Your task to perform on an android device: toggle data saver in the chrome app Image 0: 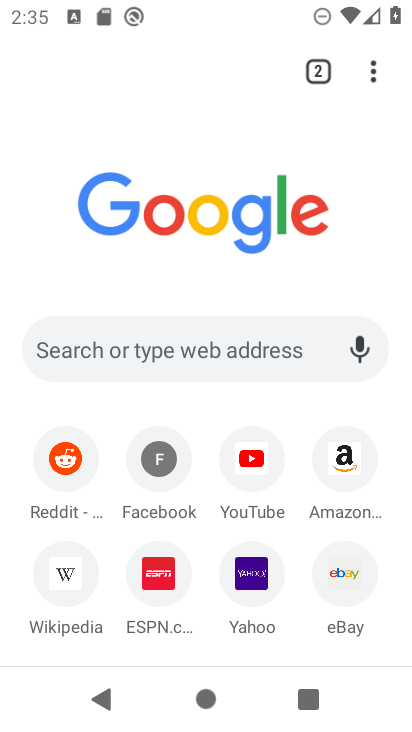
Step 0: drag from (346, 565) to (411, 433)
Your task to perform on an android device: toggle data saver in the chrome app Image 1: 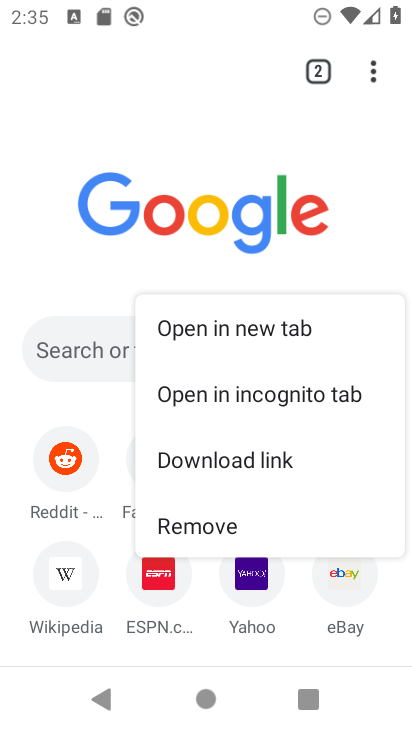
Step 1: press home button
Your task to perform on an android device: toggle data saver in the chrome app Image 2: 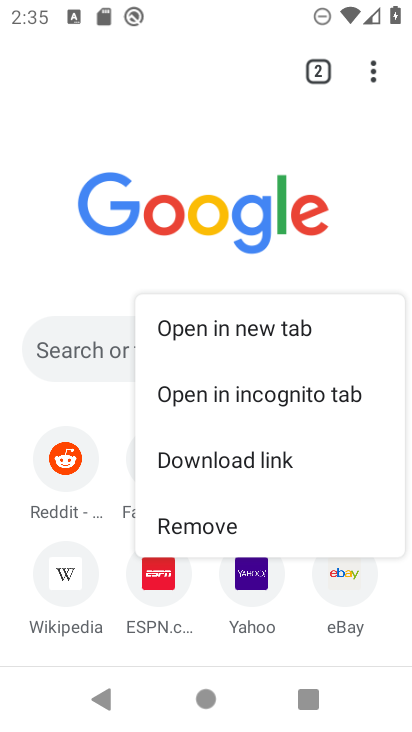
Step 2: drag from (411, 433) to (408, 474)
Your task to perform on an android device: toggle data saver in the chrome app Image 3: 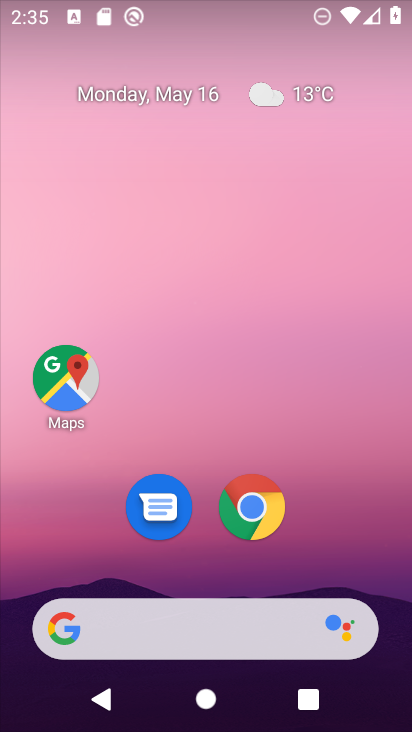
Step 3: drag from (360, 538) to (332, 119)
Your task to perform on an android device: toggle data saver in the chrome app Image 4: 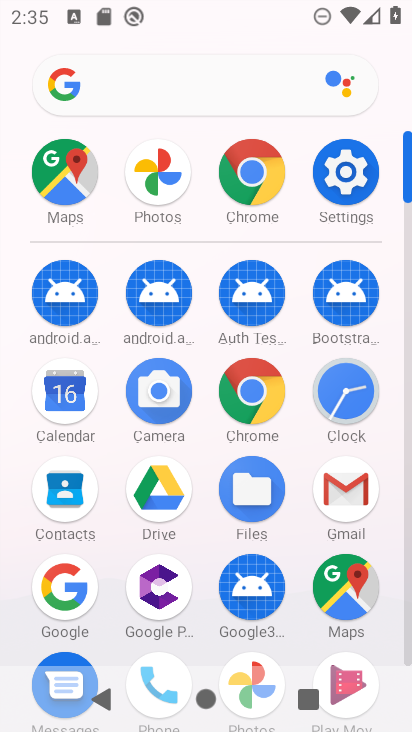
Step 4: click (269, 400)
Your task to perform on an android device: toggle data saver in the chrome app Image 5: 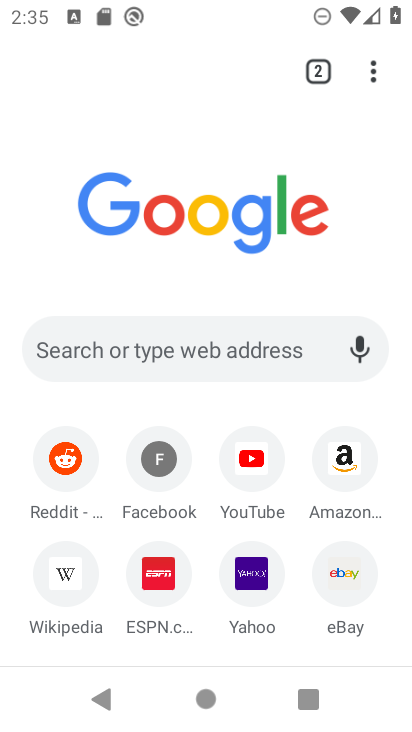
Step 5: click (373, 79)
Your task to perform on an android device: toggle data saver in the chrome app Image 6: 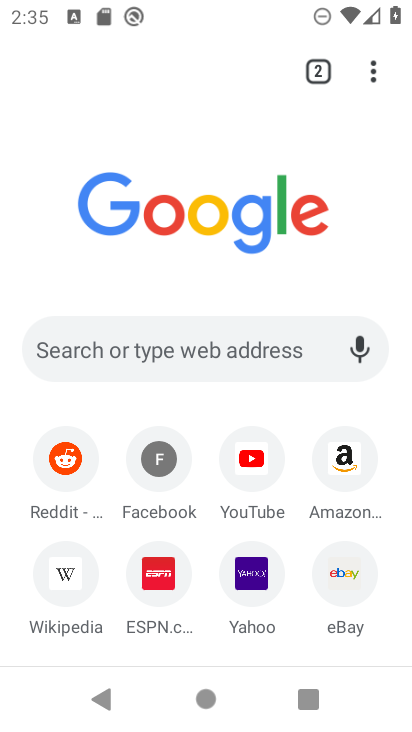
Step 6: click (373, 82)
Your task to perform on an android device: toggle data saver in the chrome app Image 7: 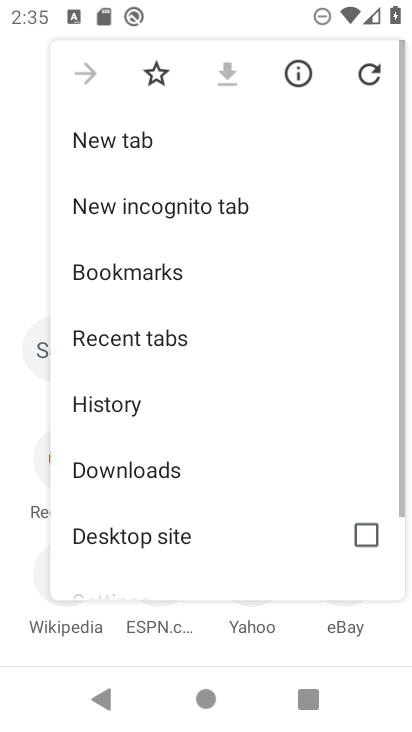
Step 7: drag from (212, 489) to (251, 227)
Your task to perform on an android device: toggle data saver in the chrome app Image 8: 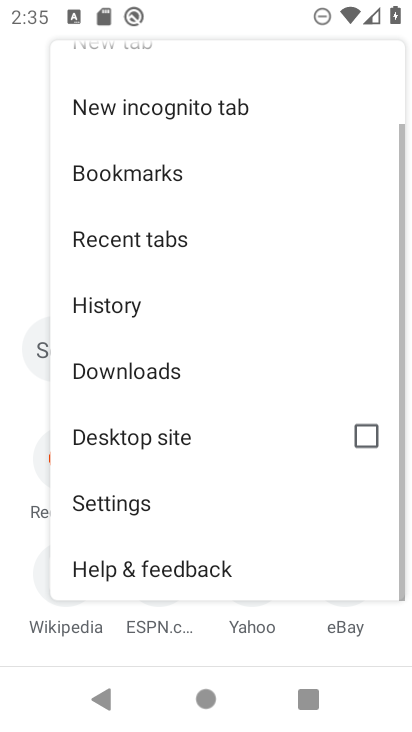
Step 8: click (183, 513)
Your task to perform on an android device: toggle data saver in the chrome app Image 9: 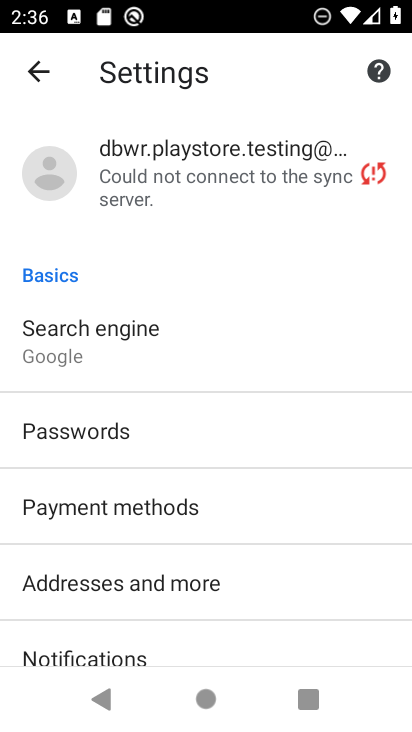
Step 9: drag from (181, 591) to (143, 141)
Your task to perform on an android device: toggle data saver in the chrome app Image 10: 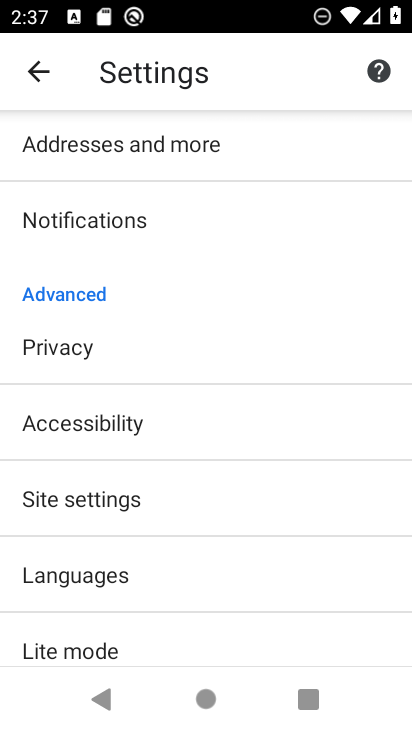
Step 10: click (145, 644)
Your task to perform on an android device: toggle data saver in the chrome app Image 11: 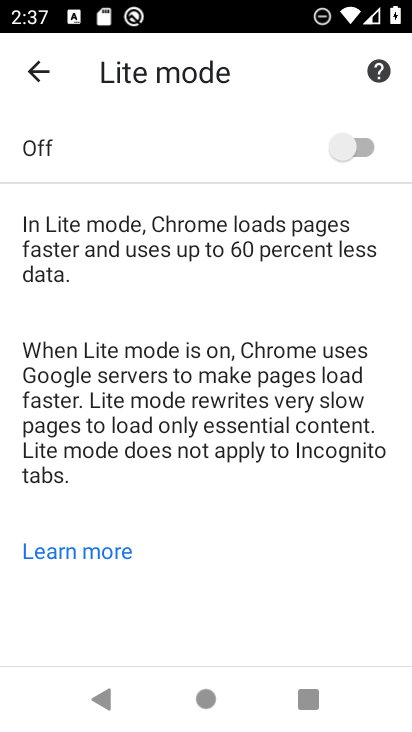
Step 11: click (361, 156)
Your task to perform on an android device: toggle data saver in the chrome app Image 12: 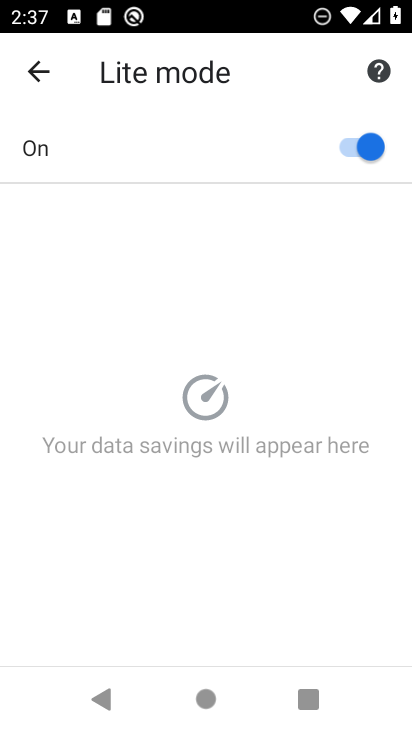
Step 12: task complete